Your task to perform on an android device: Open Chrome and go to the settings page Image 0: 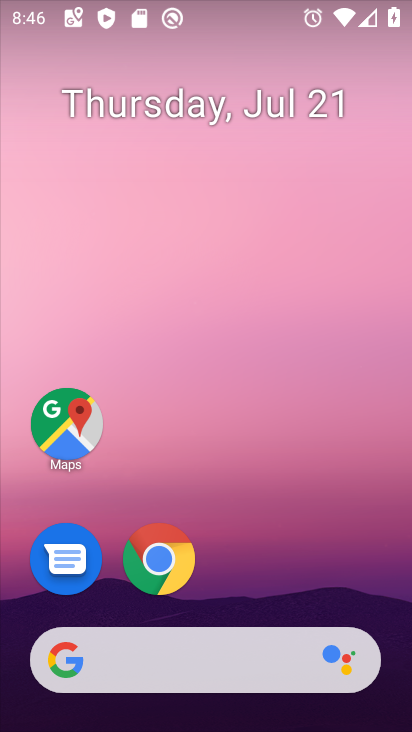
Step 0: drag from (344, 588) to (404, 207)
Your task to perform on an android device: Open Chrome and go to the settings page Image 1: 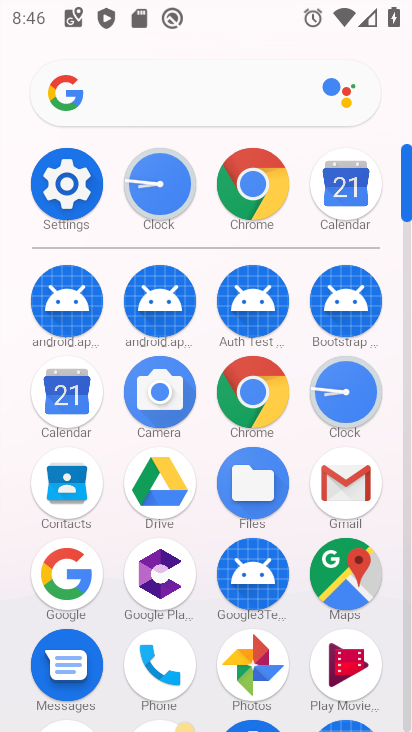
Step 1: click (258, 401)
Your task to perform on an android device: Open Chrome and go to the settings page Image 2: 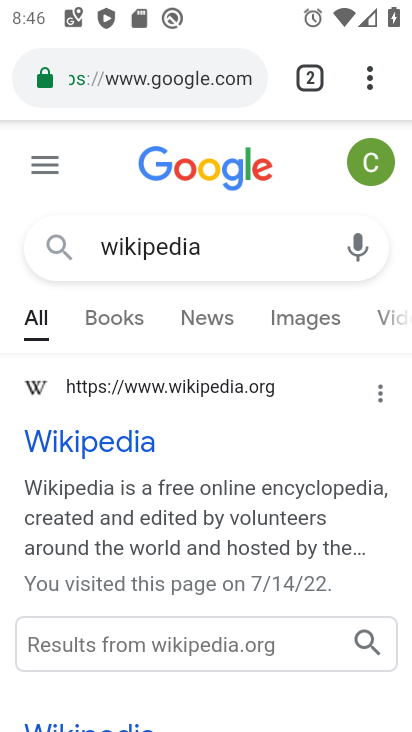
Step 2: click (368, 89)
Your task to perform on an android device: Open Chrome and go to the settings page Image 3: 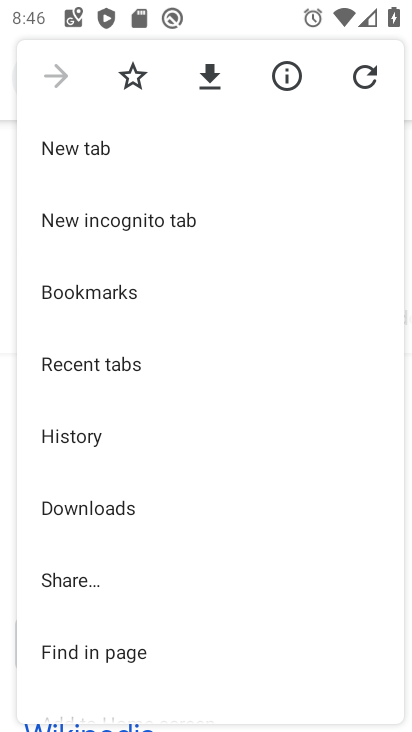
Step 3: drag from (323, 435) to (323, 379)
Your task to perform on an android device: Open Chrome and go to the settings page Image 4: 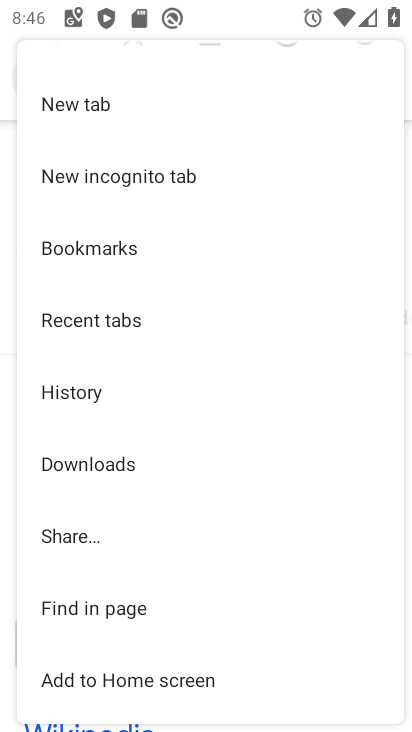
Step 4: drag from (304, 462) to (305, 374)
Your task to perform on an android device: Open Chrome and go to the settings page Image 5: 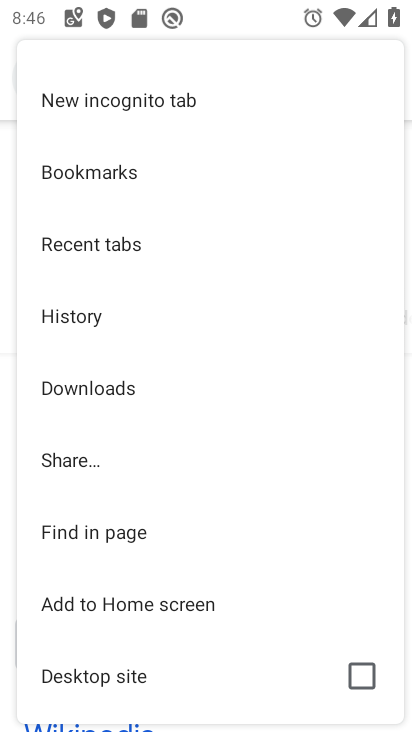
Step 5: drag from (273, 504) to (264, 372)
Your task to perform on an android device: Open Chrome and go to the settings page Image 6: 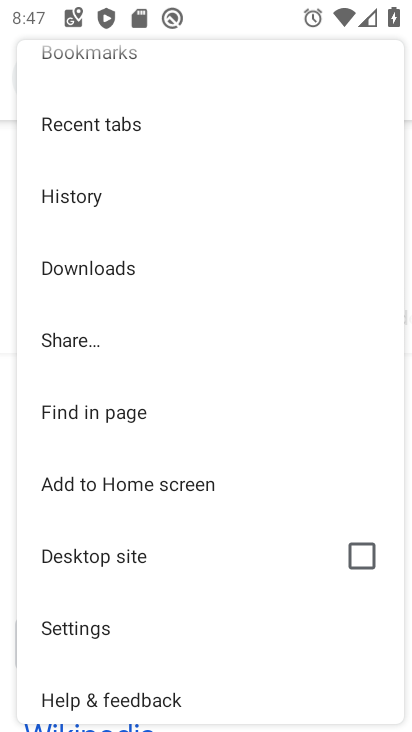
Step 6: click (87, 631)
Your task to perform on an android device: Open Chrome and go to the settings page Image 7: 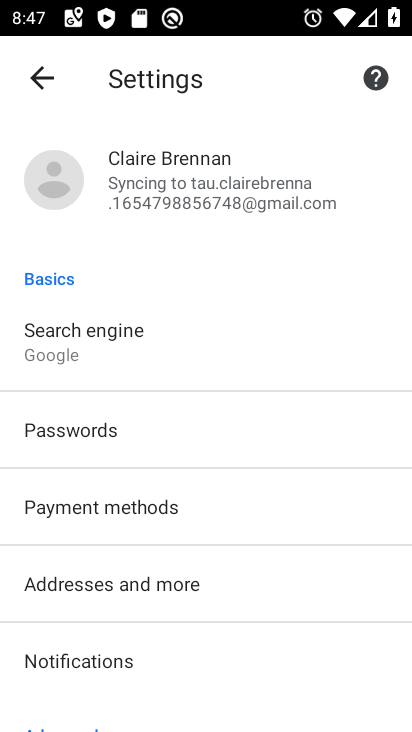
Step 7: task complete